Your task to perform on an android device: toggle data saver in the chrome app Image 0: 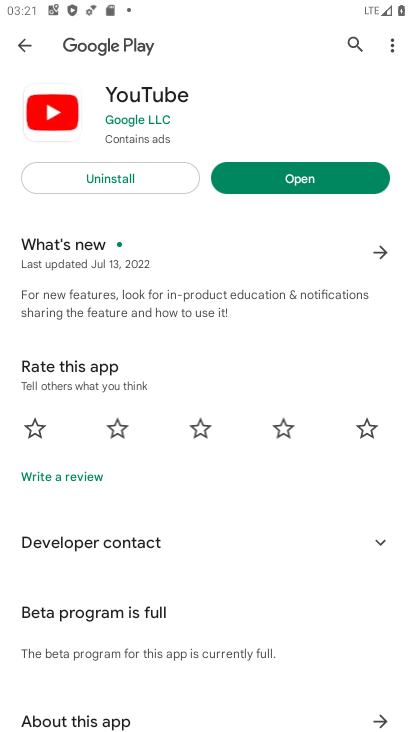
Step 0: press home button
Your task to perform on an android device: toggle data saver in the chrome app Image 1: 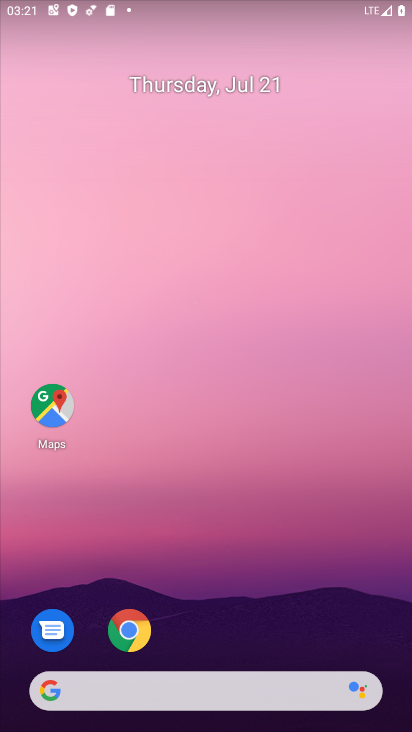
Step 1: click (135, 614)
Your task to perform on an android device: toggle data saver in the chrome app Image 2: 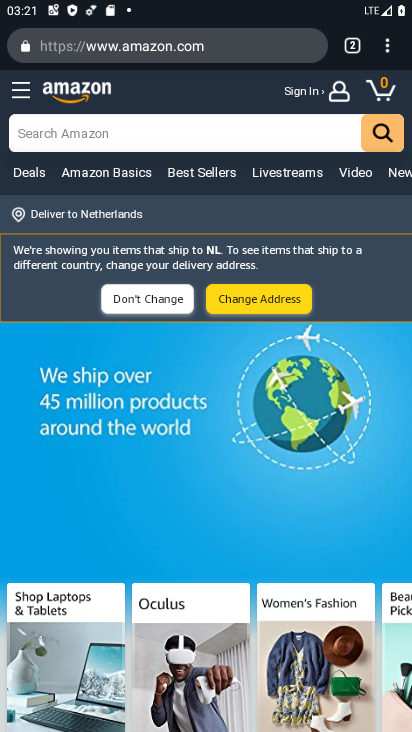
Step 2: click (393, 38)
Your task to perform on an android device: toggle data saver in the chrome app Image 3: 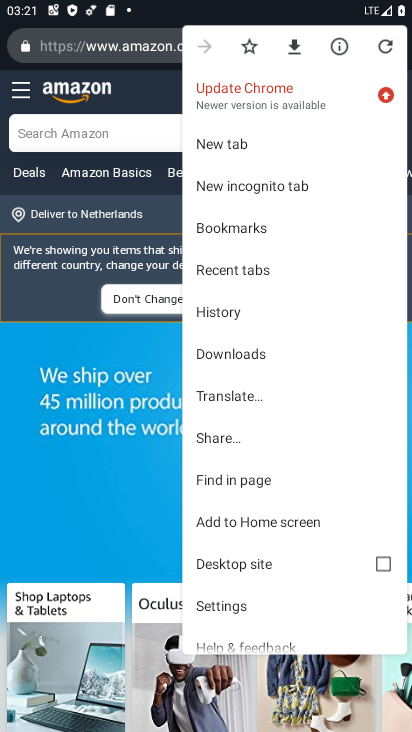
Step 3: click (238, 593)
Your task to perform on an android device: toggle data saver in the chrome app Image 4: 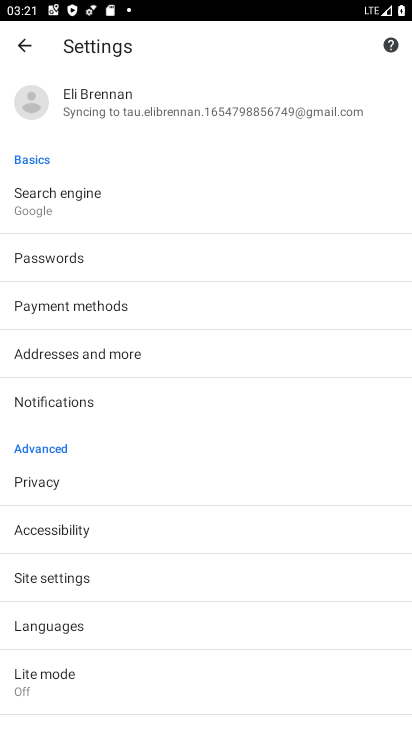
Step 4: click (49, 667)
Your task to perform on an android device: toggle data saver in the chrome app Image 5: 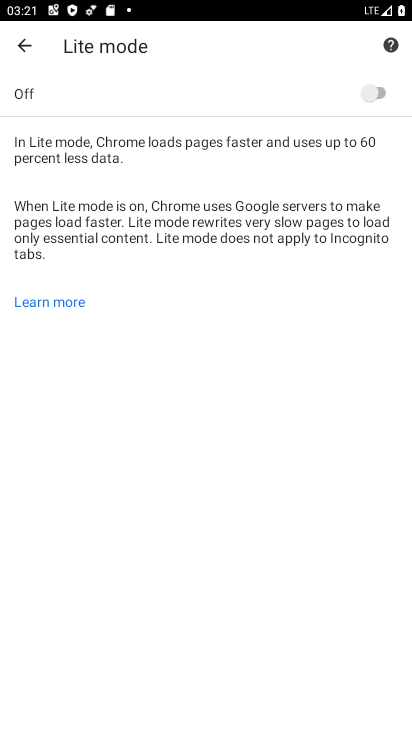
Step 5: click (373, 98)
Your task to perform on an android device: toggle data saver in the chrome app Image 6: 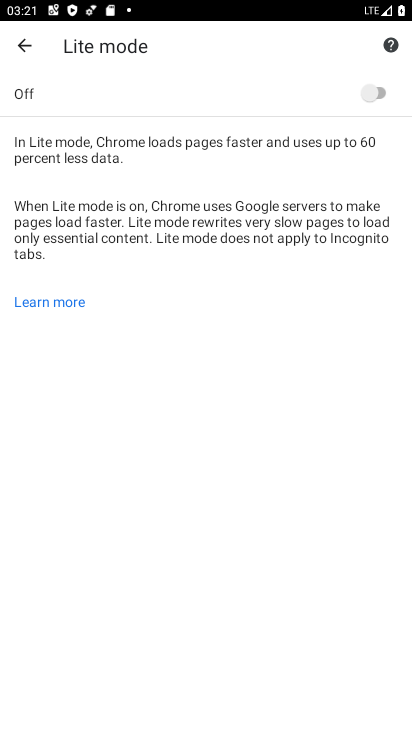
Step 6: click (373, 98)
Your task to perform on an android device: toggle data saver in the chrome app Image 7: 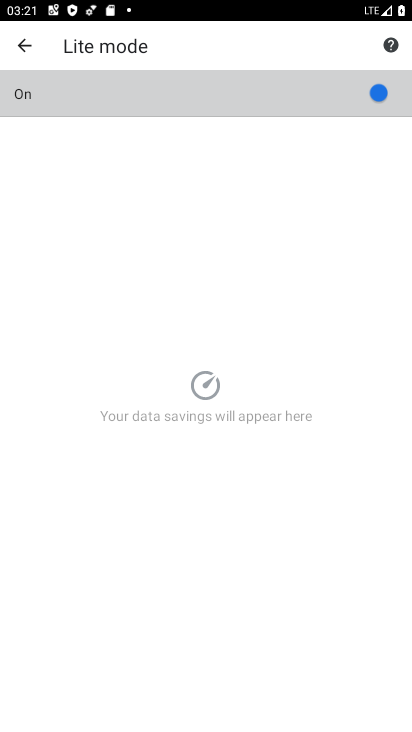
Step 7: click (373, 98)
Your task to perform on an android device: toggle data saver in the chrome app Image 8: 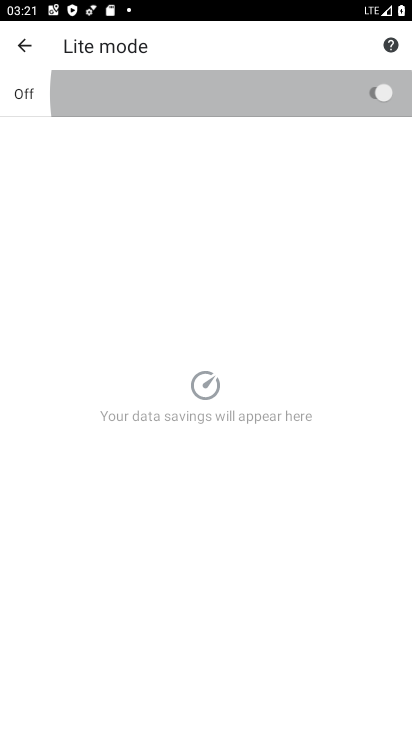
Step 8: click (373, 98)
Your task to perform on an android device: toggle data saver in the chrome app Image 9: 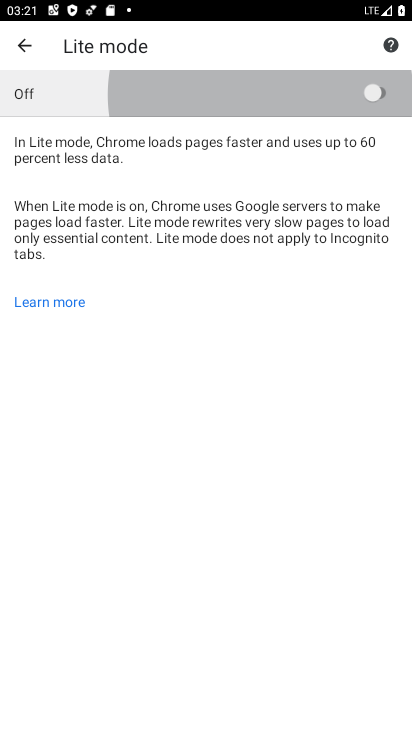
Step 9: click (373, 98)
Your task to perform on an android device: toggle data saver in the chrome app Image 10: 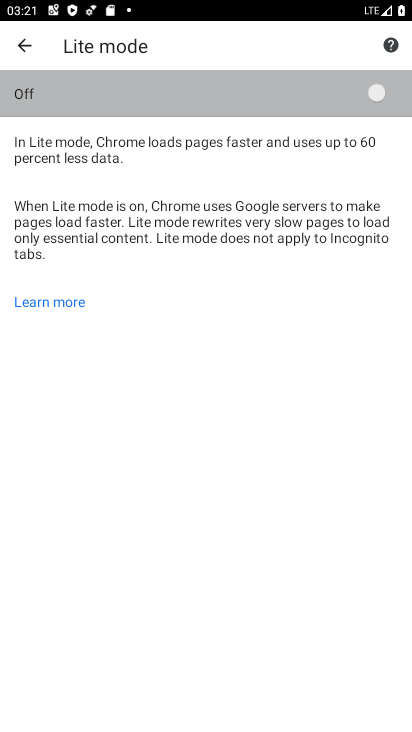
Step 10: click (373, 98)
Your task to perform on an android device: toggle data saver in the chrome app Image 11: 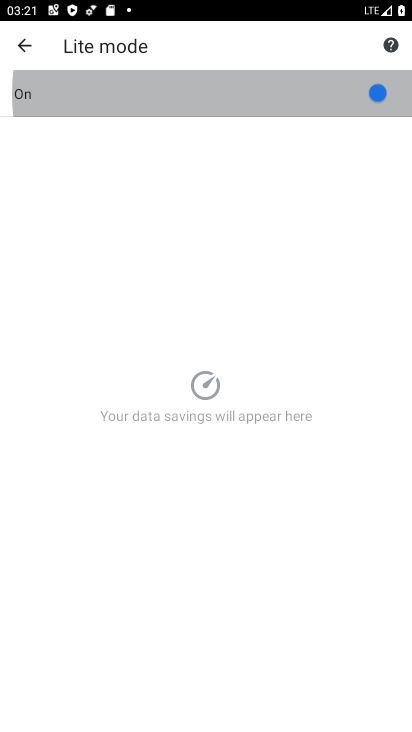
Step 11: click (373, 98)
Your task to perform on an android device: toggle data saver in the chrome app Image 12: 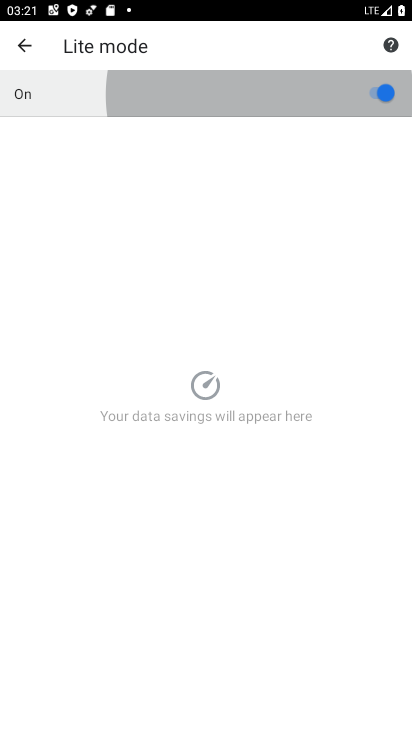
Step 12: click (373, 98)
Your task to perform on an android device: toggle data saver in the chrome app Image 13: 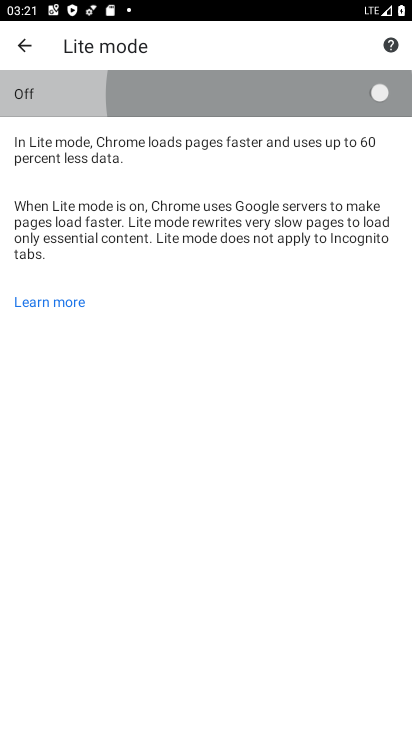
Step 13: click (373, 98)
Your task to perform on an android device: toggle data saver in the chrome app Image 14: 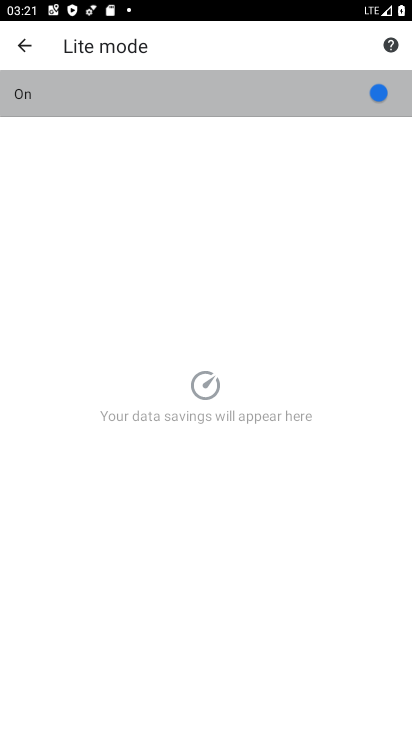
Step 14: click (373, 98)
Your task to perform on an android device: toggle data saver in the chrome app Image 15: 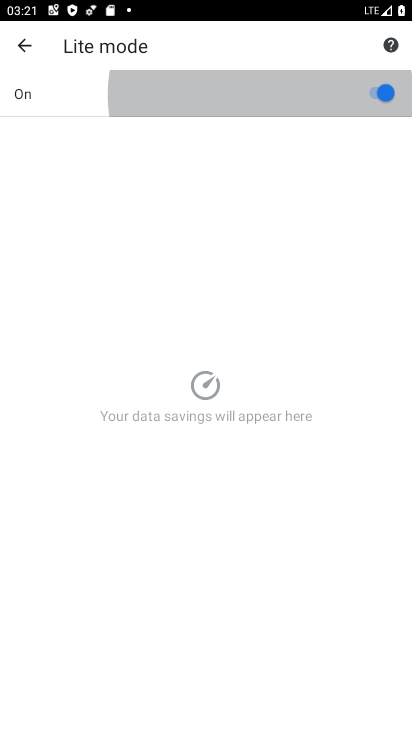
Step 15: click (373, 98)
Your task to perform on an android device: toggle data saver in the chrome app Image 16: 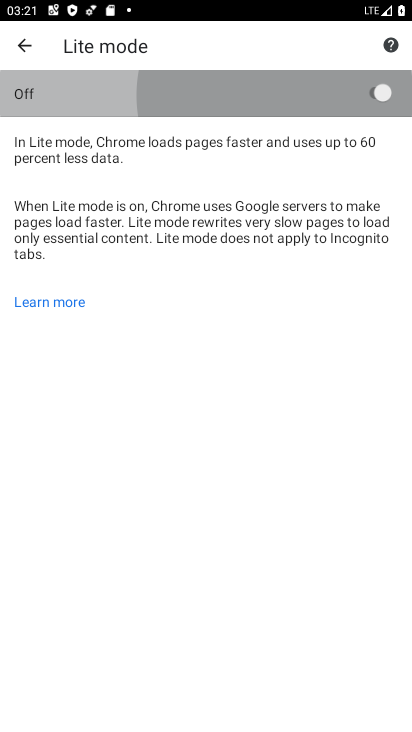
Step 16: click (373, 98)
Your task to perform on an android device: toggle data saver in the chrome app Image 17: 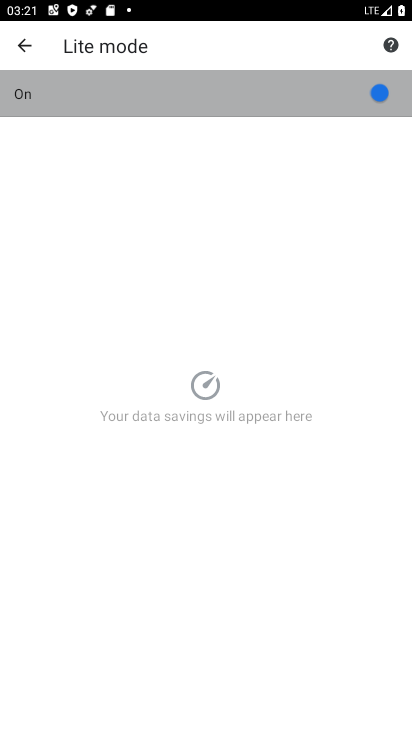
Step 17: click (373, 98)
Your task to perform on an android device: toggle data saver in the chrome app Image 18: 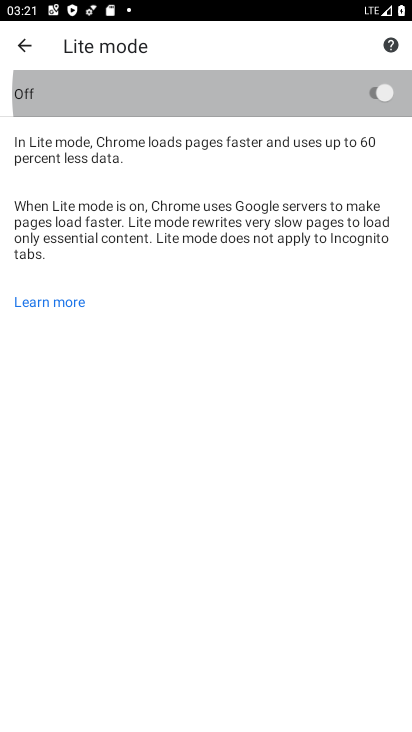
Step 18: click (373, 98)
Your task to perform on an android device: toggle data saver in the chrome app Image 19: 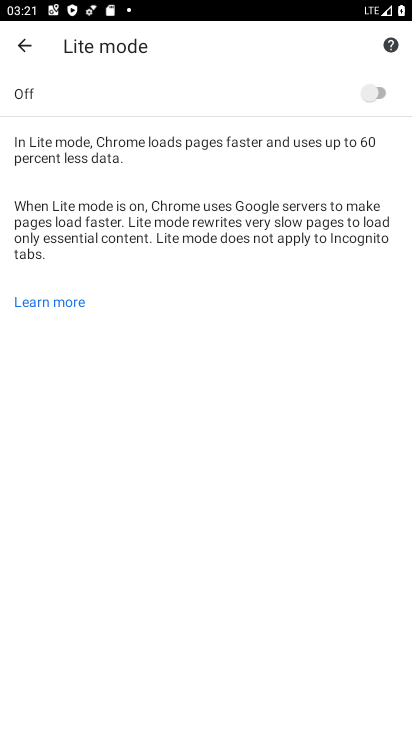
Step 19: task complete